Your task to perform on an android device: Open the map Image 0: 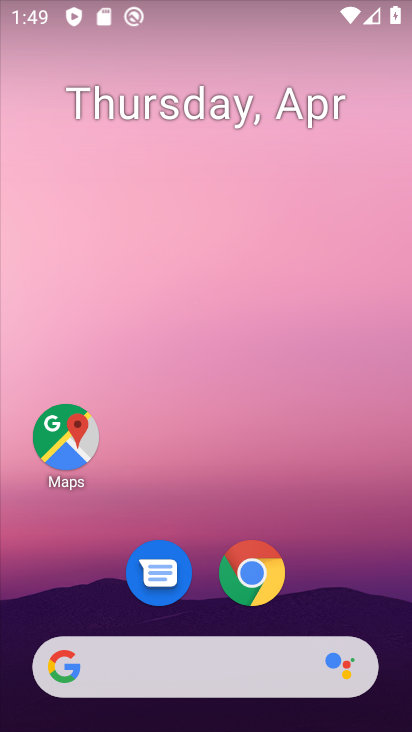
Step 0: drag from (348, 603) to (277, 54)
Your task to perform on an android device: Open the map Image 1: 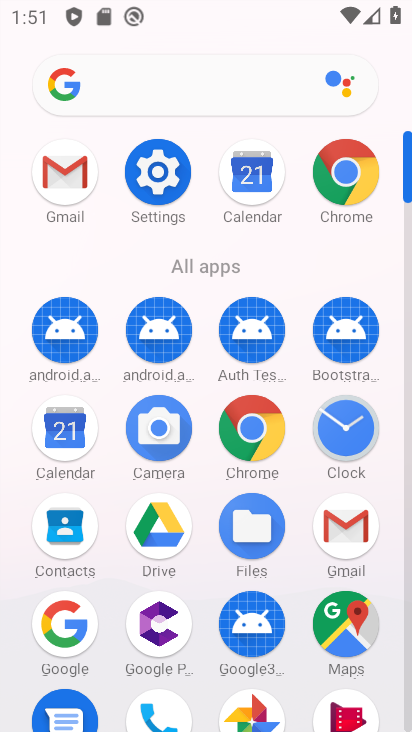
Step 1: click (346, 627)
Your task to perform on an android device: Open the map Image 2: 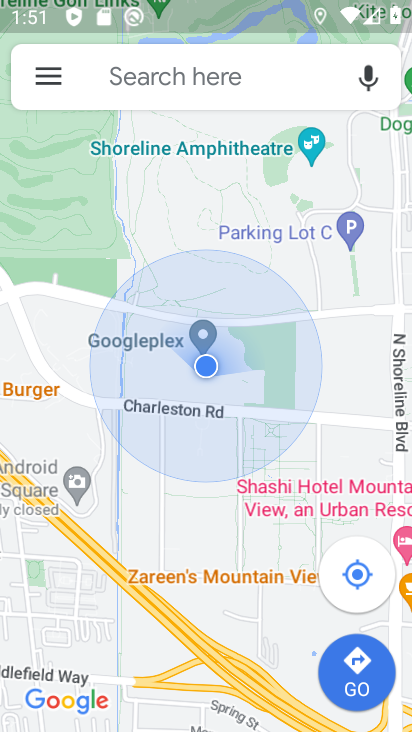
Step 2: task complete